Your task to perform on an android device: check battery use Image 0: 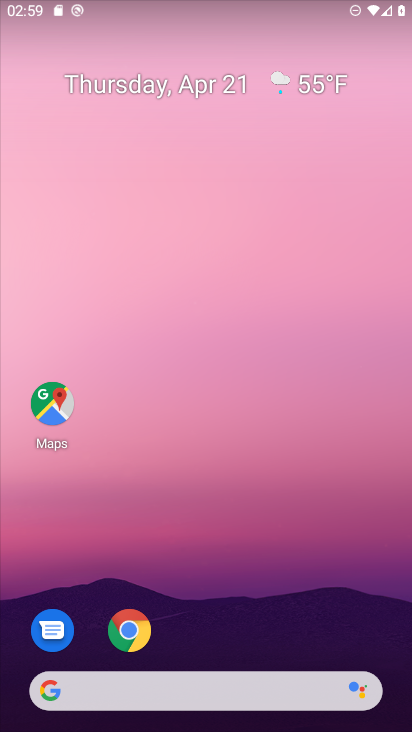
Step 0: drag from (333, 605) to (313, 144)
Your task to perform on an android device: check battery use Image 1: 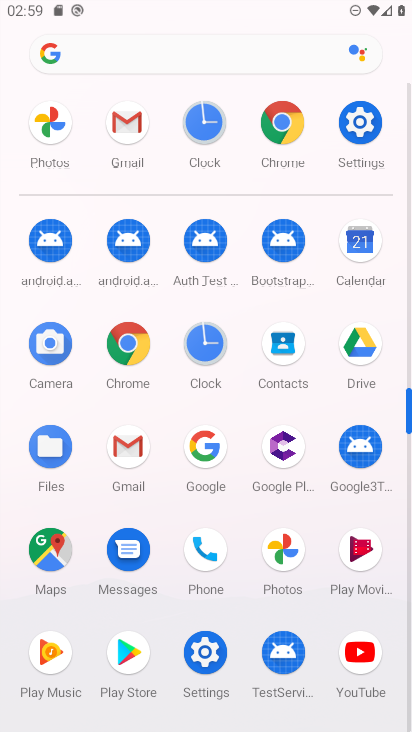
Step 1: click (352, 154)
Your task to perform on an android device: check battery use Image 2: 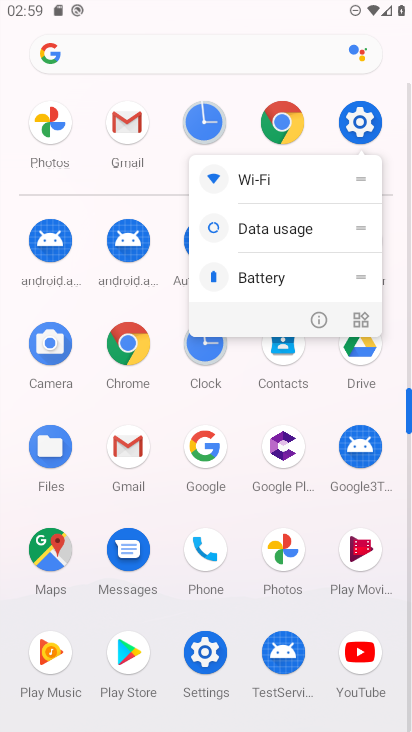
Step 2: click (354, 137)
Your task to perform on an android device: check battery use Image 3: 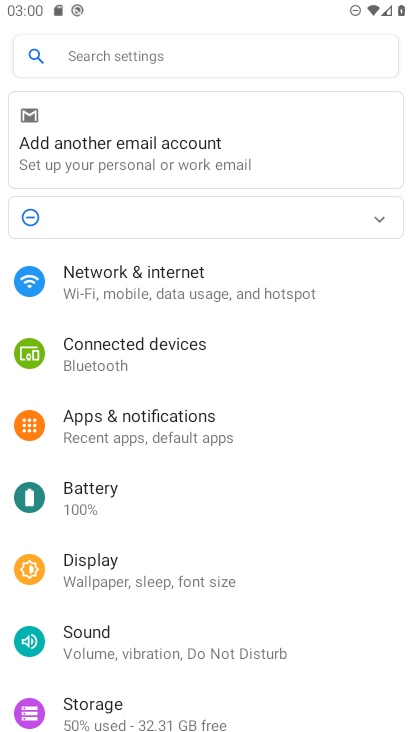
Step 3: click (193, 496)
Your task to perform on an android device: check battery use Image 4: 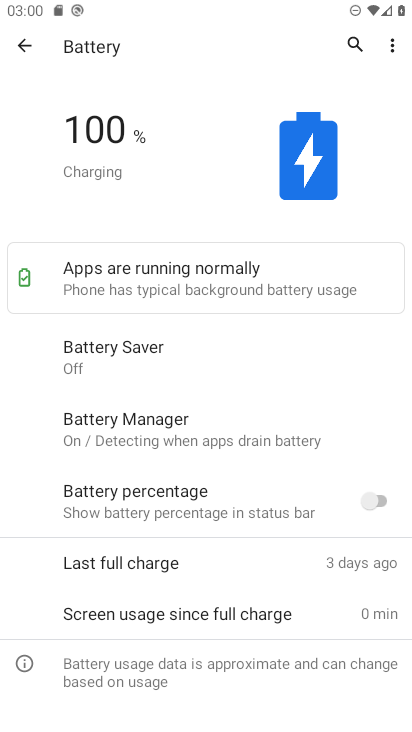
Step 4: task complete